Your task to perform on an android device: turn on wifi Image 0: 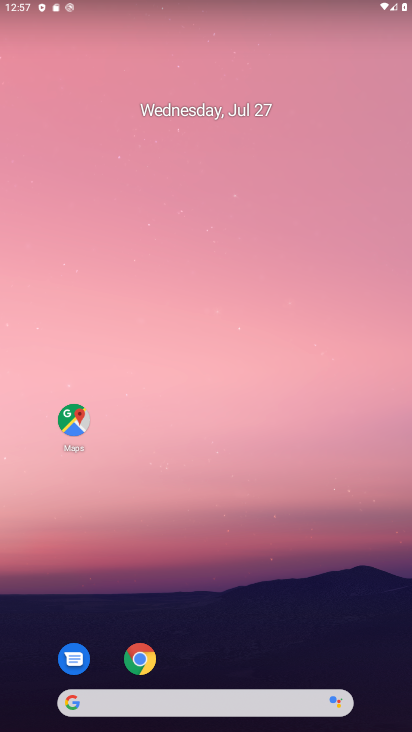
Step 0: drag from (283, 594) to (212, 10)
Your task to perform on an android device: turn on wifi Image 1: 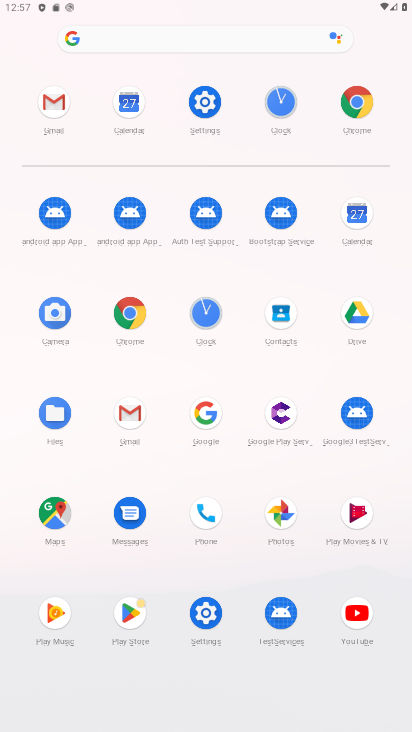
Step 1: click (205, 95)
Your task to perform on an android device: turn on wifi Image 2: 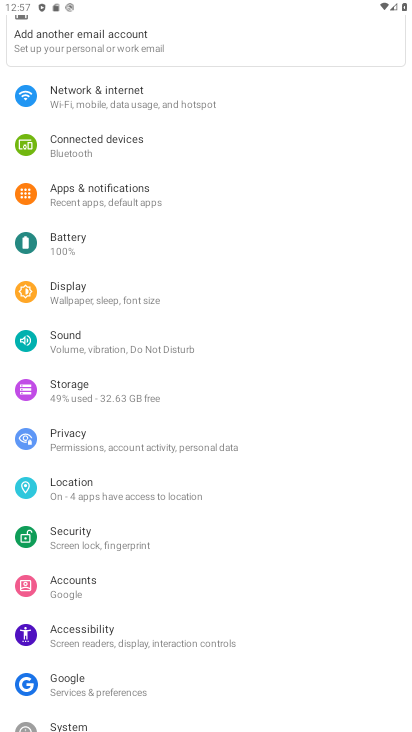
Step 2: click (125, 105)
Your task to perform on an android device: turn on wifi Image 3: 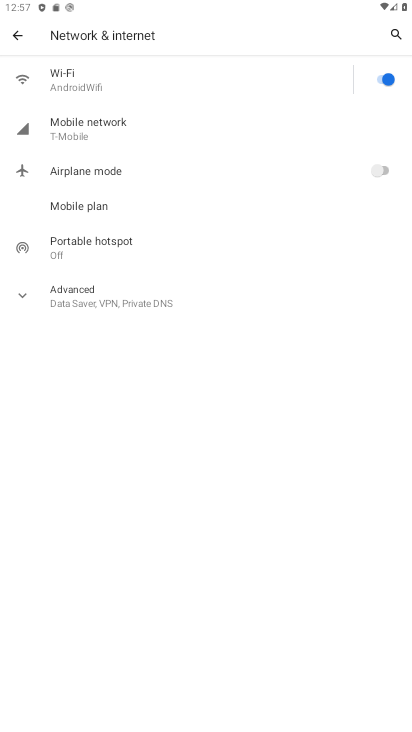
Step 3: click (100, 75)
Your task to perform on an android device: turn on wifi Image 4: 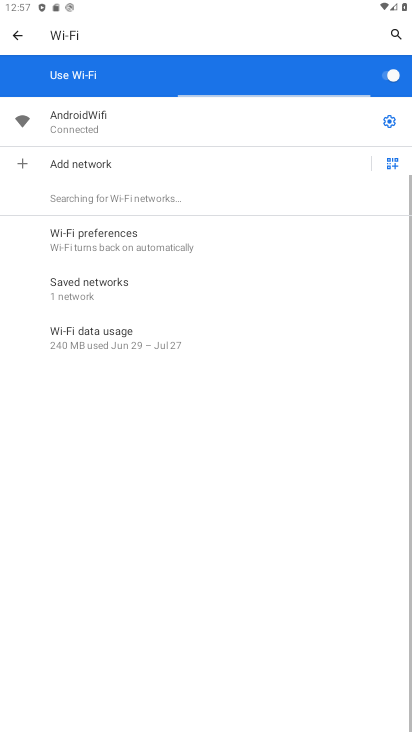
Step 4: task complete